Your task to perform on an android device: set the stopwatch Image 0: 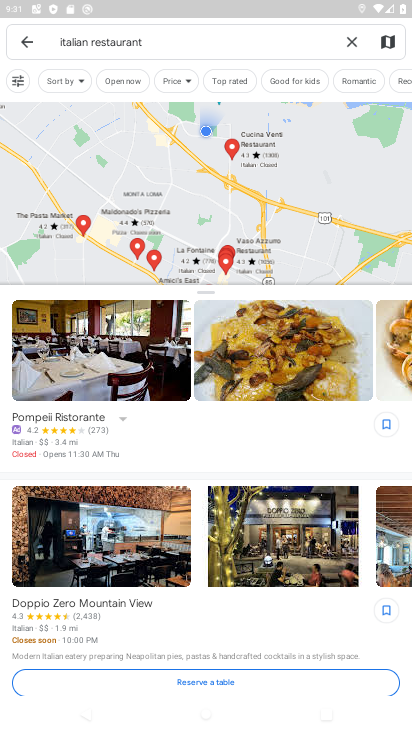
Step 0: press home button
Your task to perform on an android device: set the stopwatch Image 1: 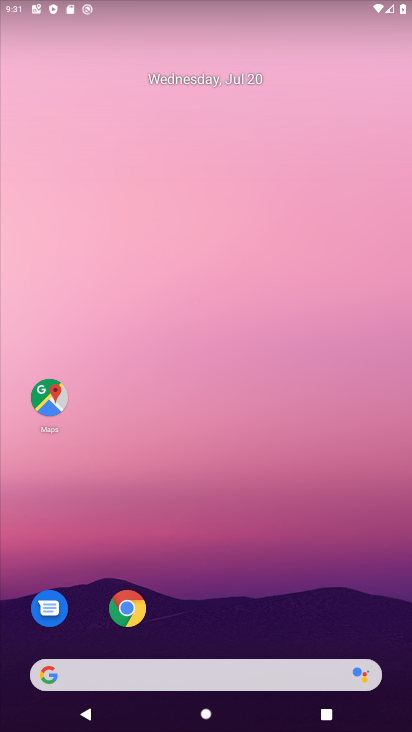
Step 1: drag from (250, 710) to (384, 79)
Your task to perform on an android device: set the stopwatch Image 2: 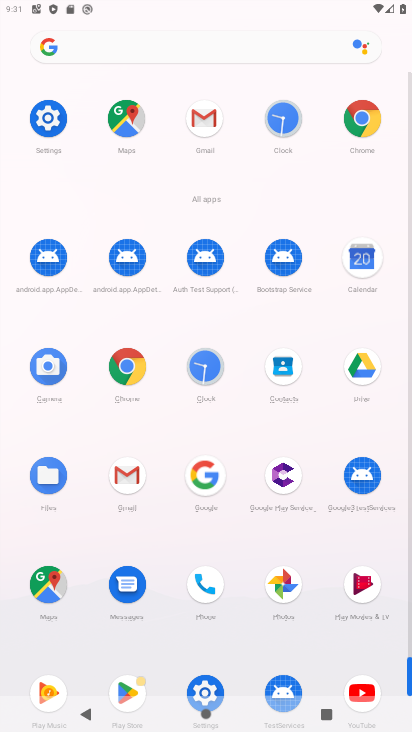
Step 2: click (199, 367)
Your task to perform on an android device: set the stopwatch Image 3: 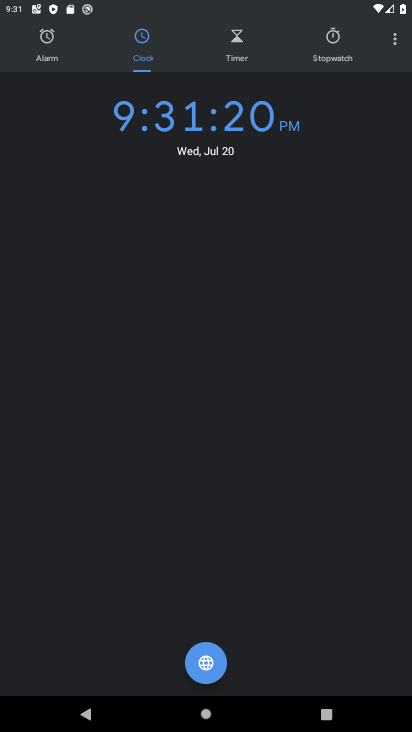
Step 3: click (325, 60)
Your task to perform on an android device: set the stopwatch Image 4: 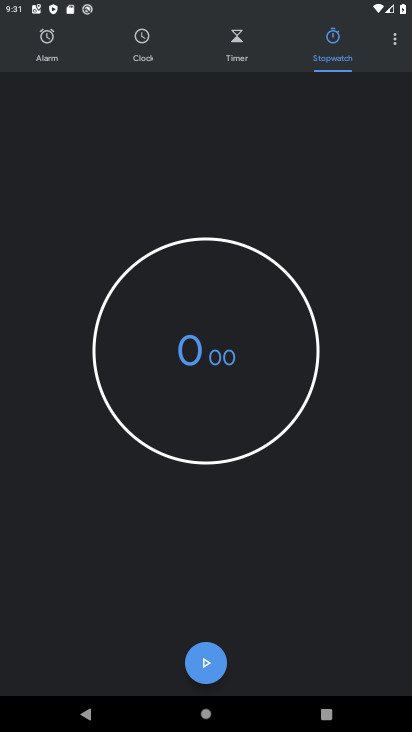
Step 4: task complete